Your task to perform on an android device: Open wifi settings Image 0: 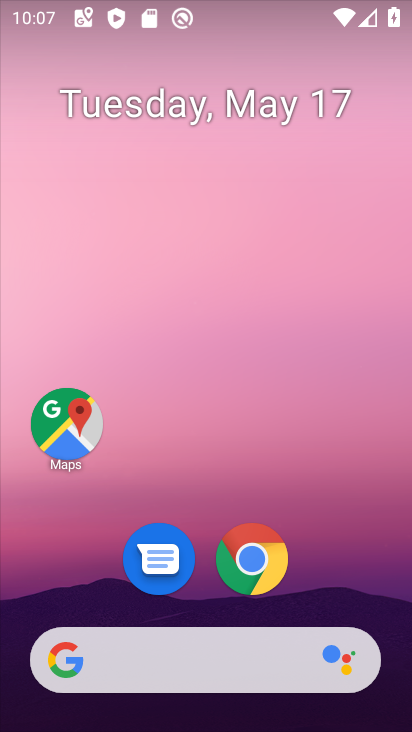
Step 0: drag from (265, 720) to (270, 3)
Your task to perform on an android device: Open wifi settings Image 1: 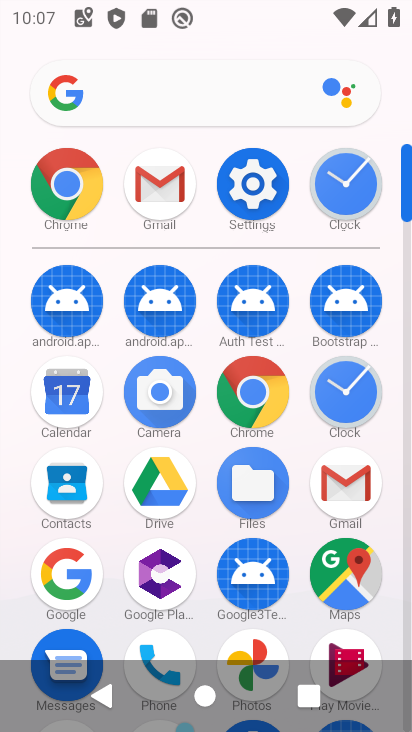
Step 1: click (268, 187)
Your task to perform on an android device: Open wifi settings Image 2: 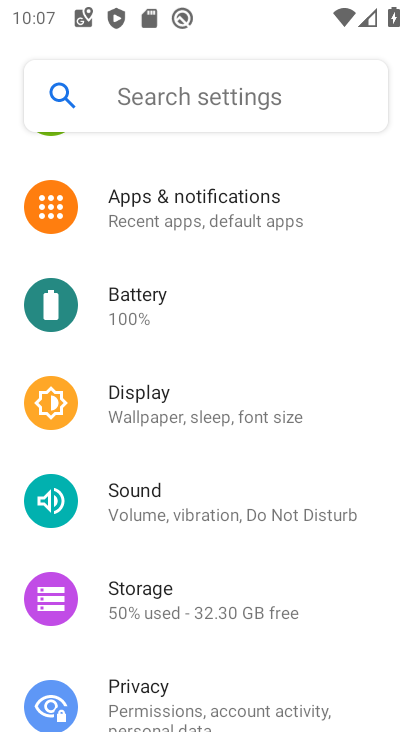
Step 2: drag from (345, 177) to (224, 703)
Your task to perform on an android device: Open wifi settings Image 3: 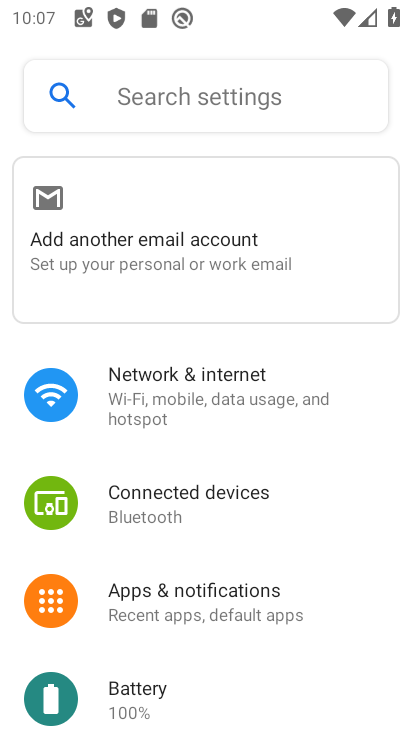
Step 3: click (198, 381)
Your task to perform on an android device: Open wifi settings Image 4: 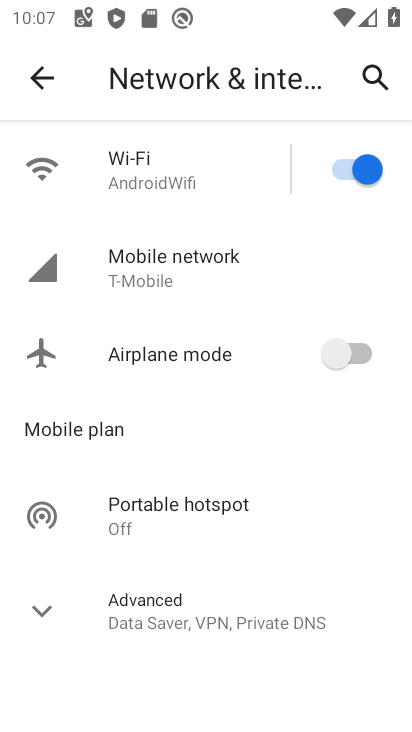
Step 4: click (192, 174)
Your task to perform on an android device: Open wifi settings Image 5: 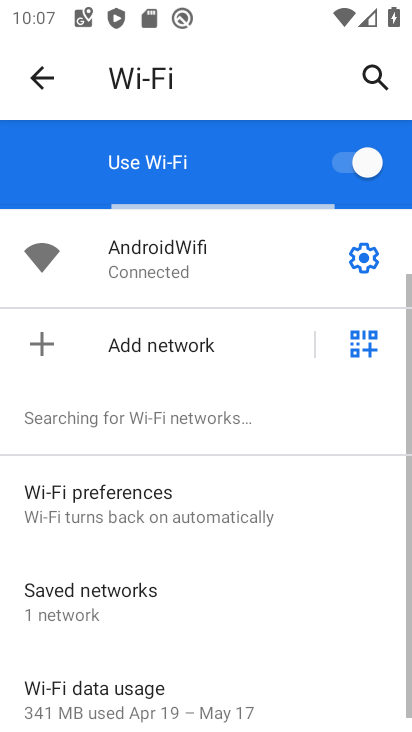
Step 5: click (358, 250)
Your task to perform on an android device: Open wifi settings Image 6: 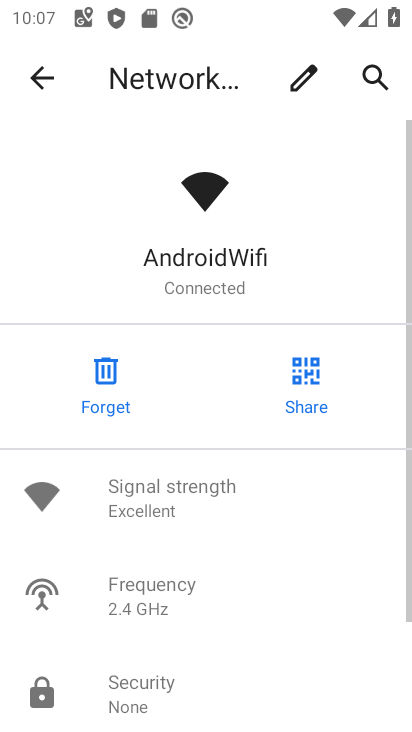
Step 6: task complete